Your task to perform on an android device: remove spam from my inbox in the gmail app Image 0: 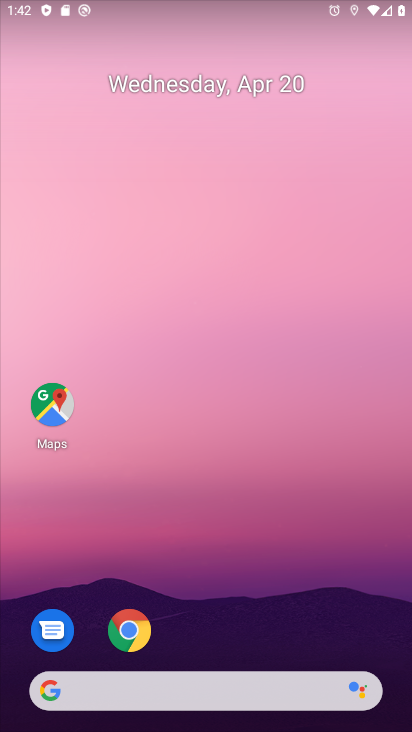
Step 0: drag from (242, 647) to (64, 76)
Your task to perform on an android device: remove spam from my inbox in the gmail app Image 1: 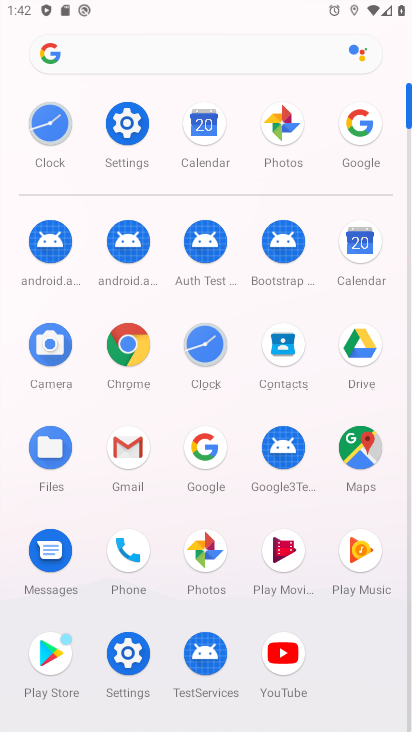
Step 1: click (120, 450)
Your task to perform on an android device: remove spam from my inbox in the gmail app Image 2: 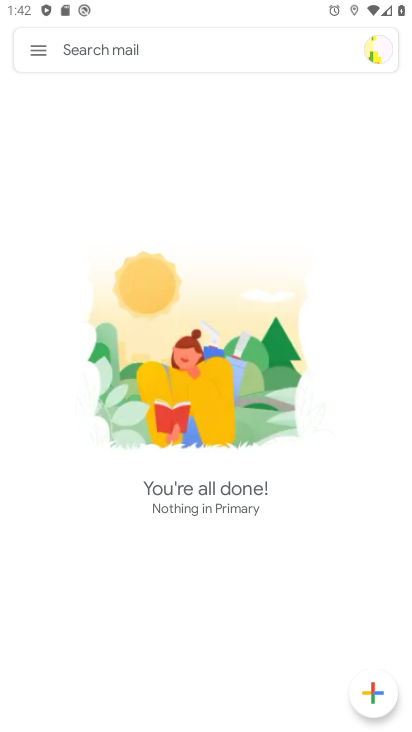
Step 2: click (34, 52)
Your task to perform on an android device: remove spam from my inbox in the gmail app Image 3: 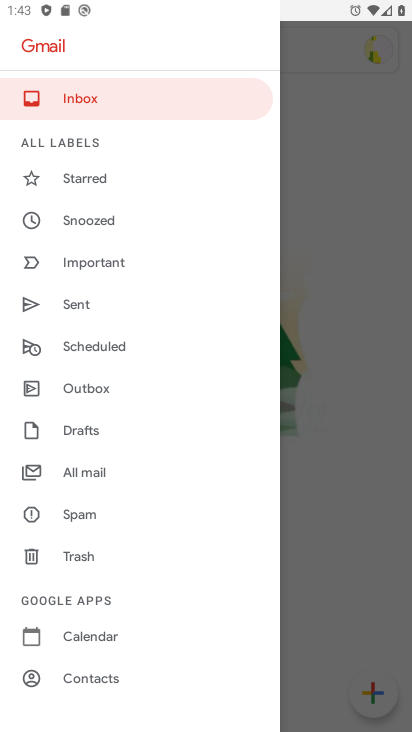
Step 3: click (72, 514)
Your task to perform on an android device: remove spam from my inbox in the gmail app Image 4: 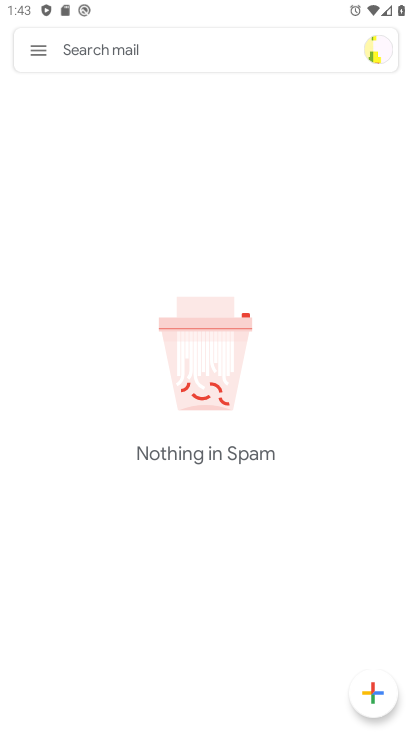
Step 4: task complete